Your task to perform on an android device: Turn on the flashlight Image 0: 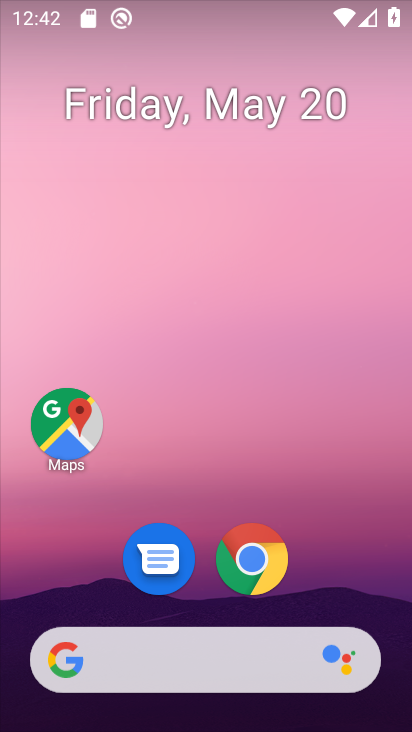
Step 0: drag from (315, 570) to (325, 95)
Your task to perform on an android device: Turn on the flashlight Image 1: 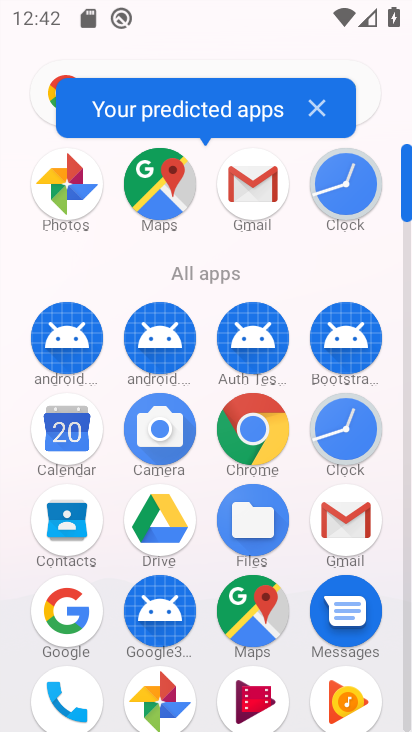
Step 1: drag from (205, 615) to (215, 257)
Your task to perform on an android device: Turn on the flashlight Image 2: 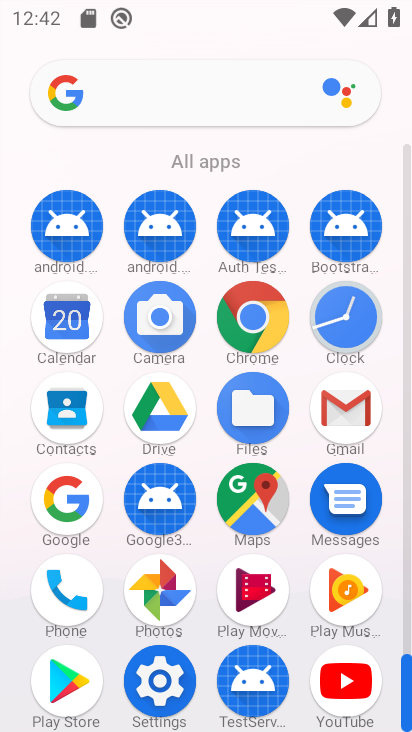
Step 2: click (161, 685)
Your task to perform on an android device: Turn on the flashlight Image 3: 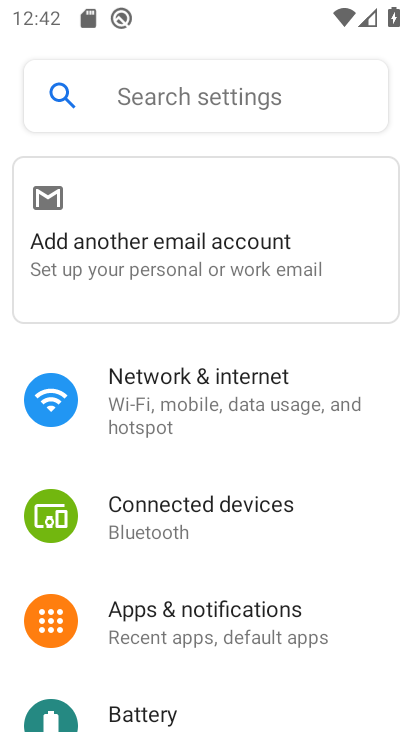
Step 3: click (229, 98)
Your task to perform on an android device: Turn on the flashlight Image 4: 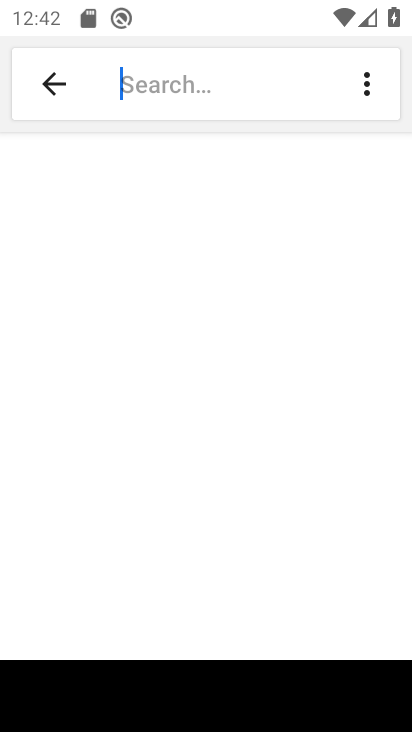
Step 4: type "flashlight"
Your task to perform on an android device: Turn on the flashlight Image 5: 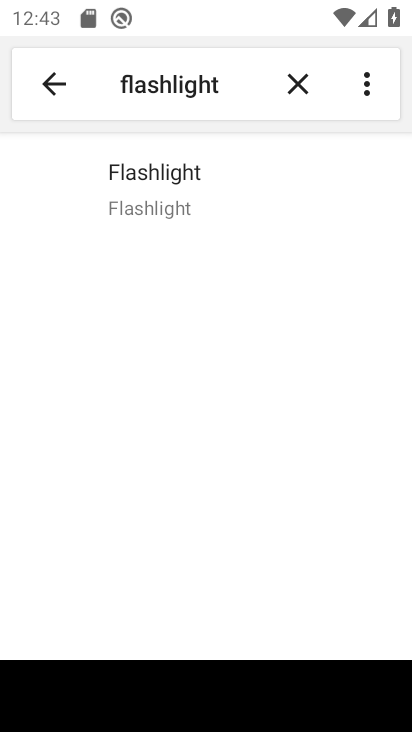
Step 5: click (188, 185)
Your task to perform on an android device: Turn on the flashlight Image 6: 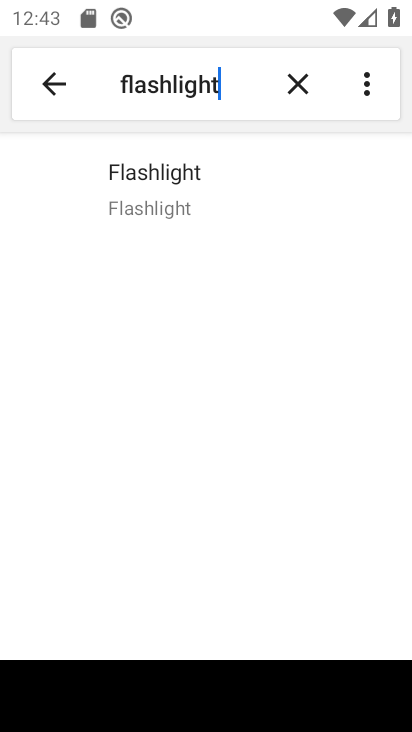
Step 6: click (160, 203)
Your task to perform on an android device: Turn on the flashlight Image 7: 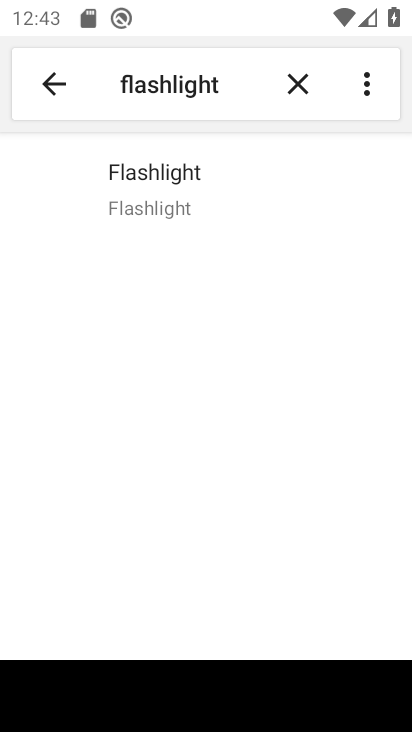
Step 7: task complete